Your task to perform on an android device: empty trash in the gmail app Image 0: 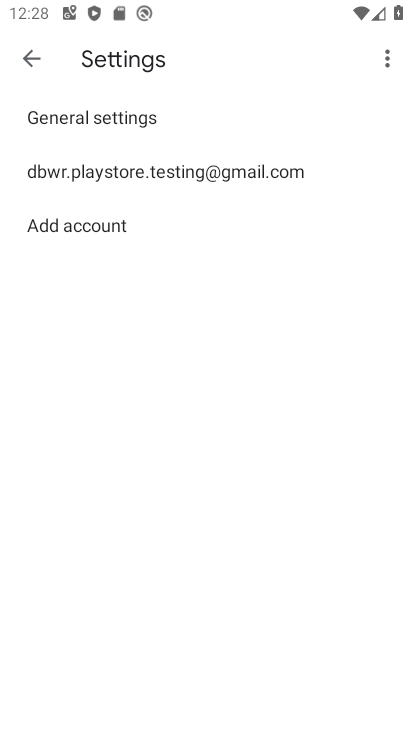
Step 0: click (23, 65)
Your task to perform on an android device: empty trash in the gmail app Image 1: 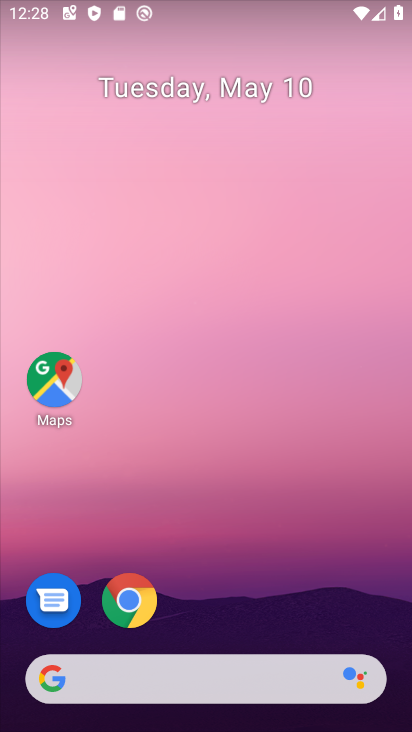
Step 1: drag from (193, 641) to (183, 46)
Your task to perform on an android device: empty trash in the gmail app Image 2: 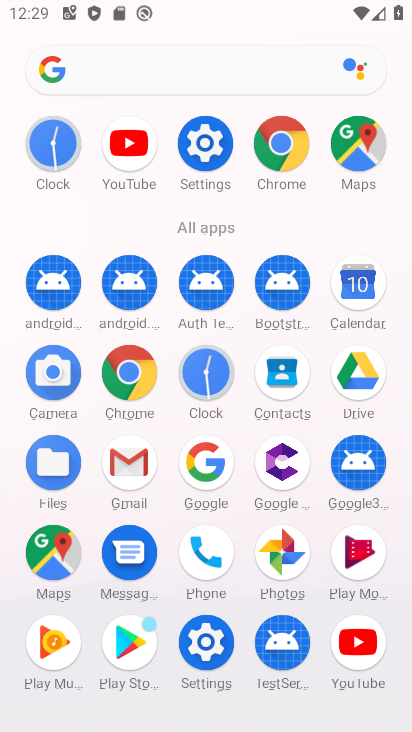
Step 2: click (150, 473)
Your task to perform on an android device: empty trash in the gmail app Image 3: 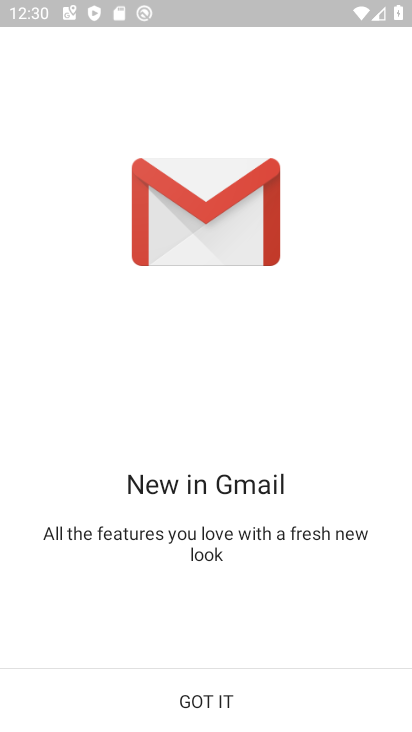
Step 3: click (192, 679)
Your task to perform on an android device: empty trash in the gmail app Image 4: 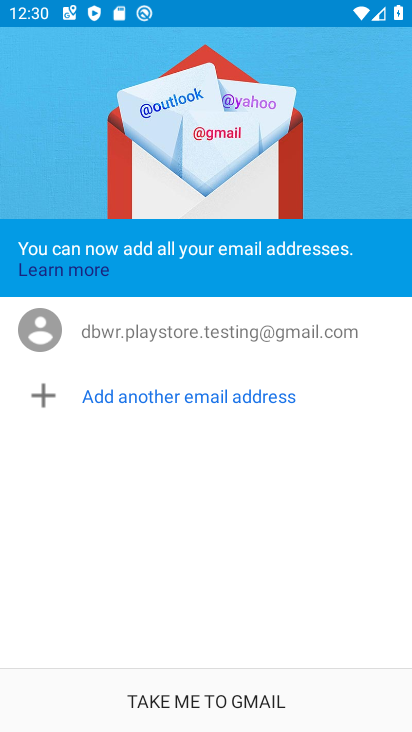
Step 4: click (198, 697)
Your task to perform on an android device: empty trash in the gmail app Image 5: 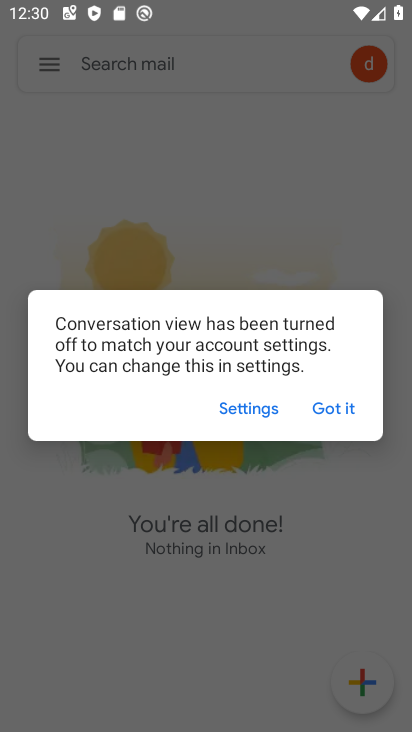
Step 5: click (329, 413)
Your task to perform on an android device: empty trash in the gmail app Image 6: 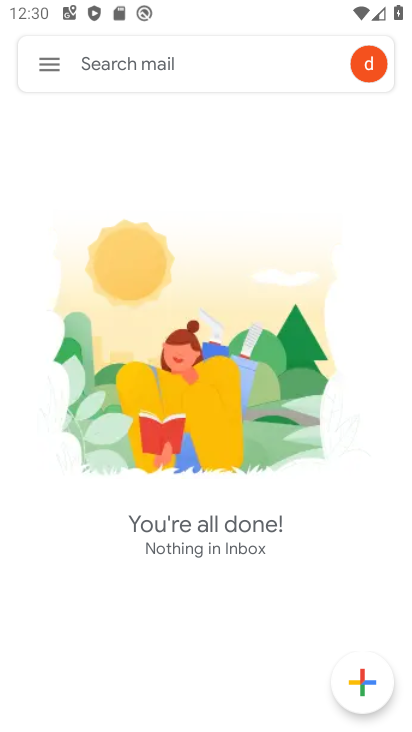
Step 6: click (47, 67)
Your task to perform on an android device: empty trash in the gmail app Image 7: 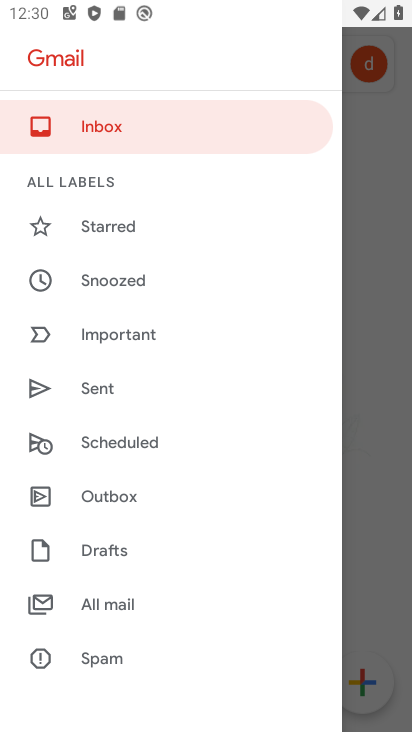
Step 7: drag from (107, 627) to (110, 154)
Your task to perform on an android device: empty trash in the gmail app Image 8: 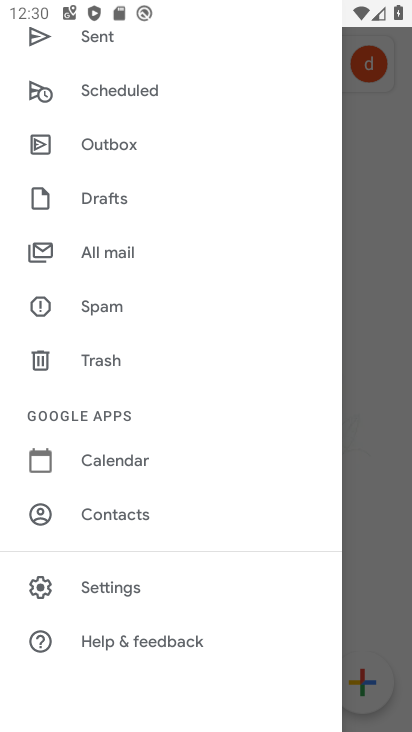
Step 8: click (124, 364)
Your task to perform on an android device: empty trash in the gmail app Image 9: 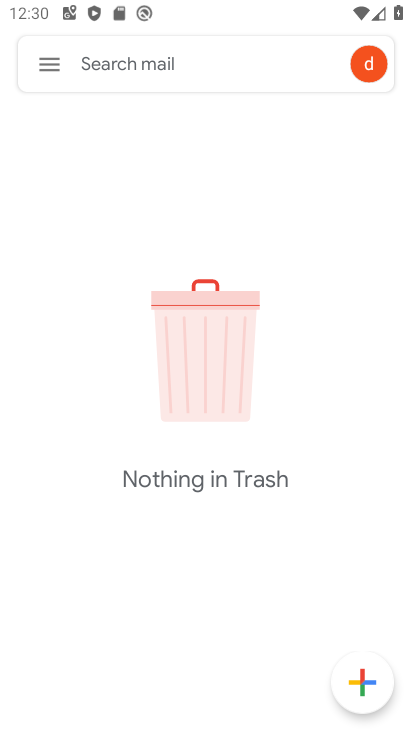
Step 9: task complete